Your task to perform on an android device: Show me the alarms in the clock app Image 0: 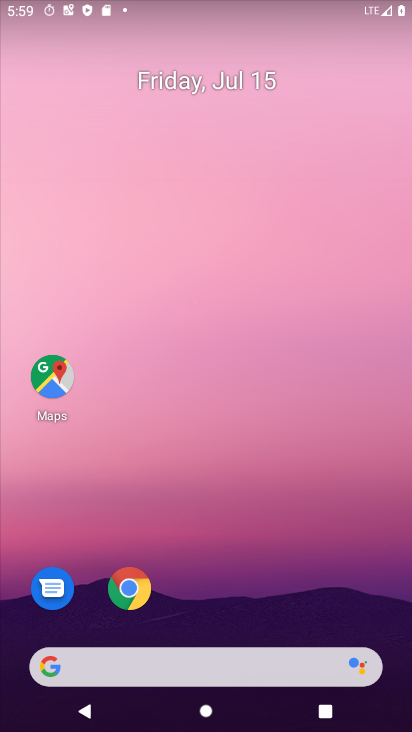
Step 0: drag from (212, 597) to (224, 33)
Your task to perform on an android device: Show me the alarms in the clock app Image 1: 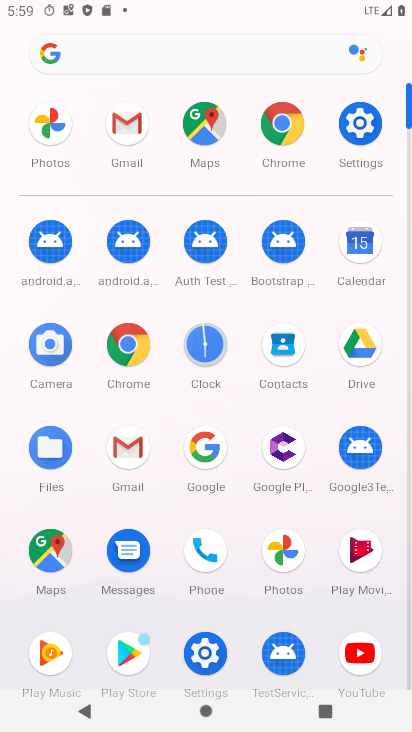
Step 1: click (215, 350)
Your task to perform on an android device: Show me the alarms in the clock app Image 2: 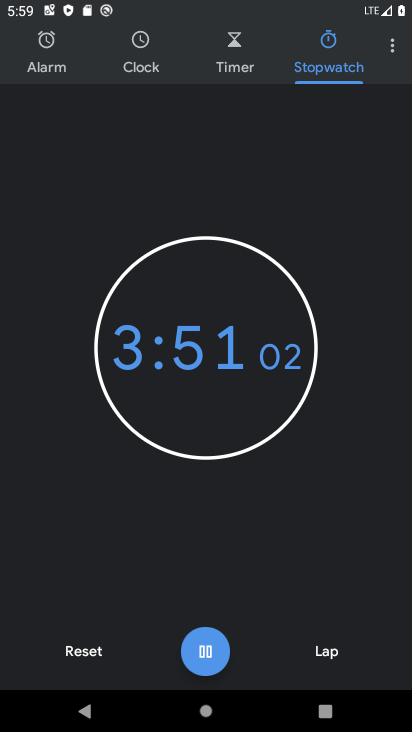
Step 2: click (47, 40)
Your task to perform on an android device: Show me the alarms in the clock app Image 3: 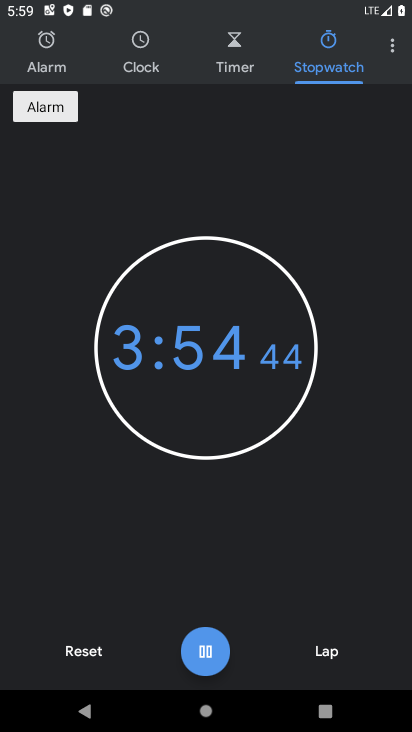
Step 3: click (34, 49)
Your task to perform on an android device: Show me the alarms in the clock app Image 4: 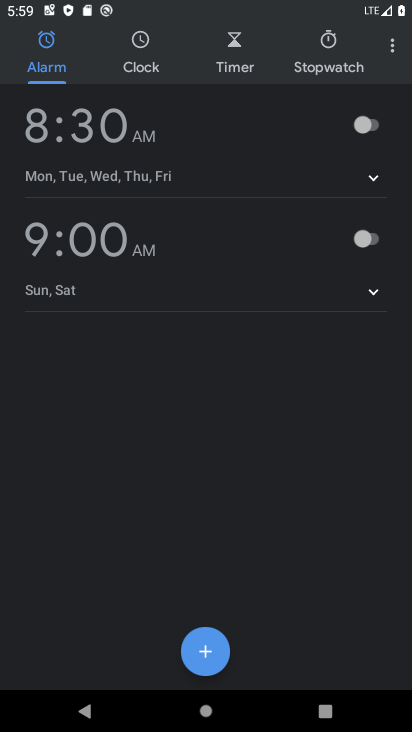
Step 4: task complete